Your task to perform on an android device: Open Reddit.com Image 0: 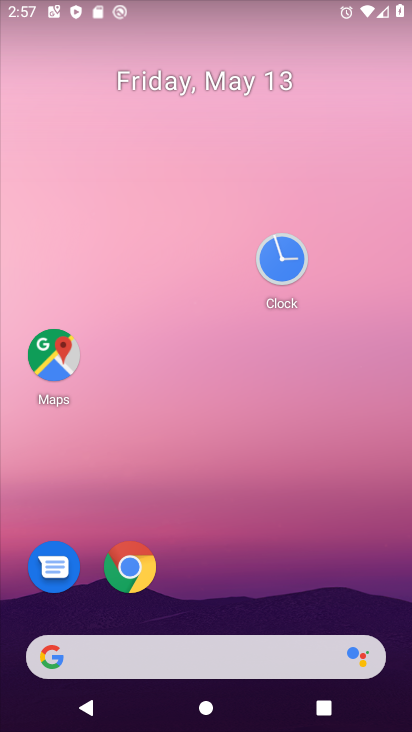
Step 0: click (157, 562)
Your task to perform on an android device: Open Reddit.com Image 1: 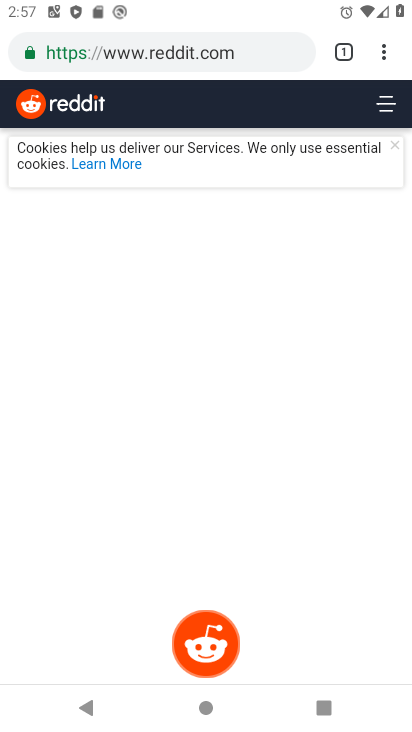
Step 1: click (248, 66)
Your task to perform on an android device: Open Reddit.com Image 2: 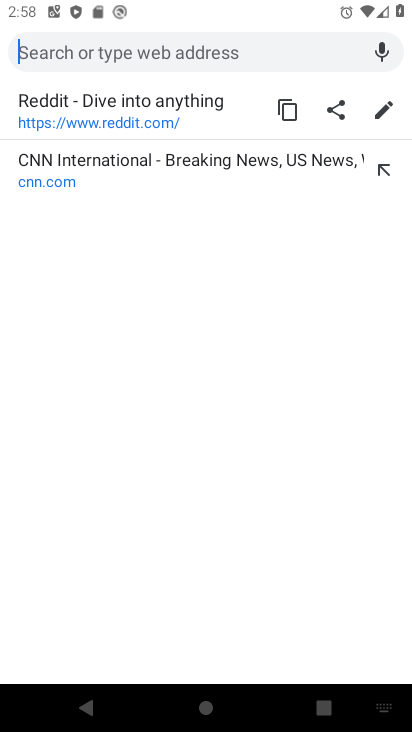
Step 2: click (135, 106)
Your task to perform on an android device: Open Reddit.com Image 3: 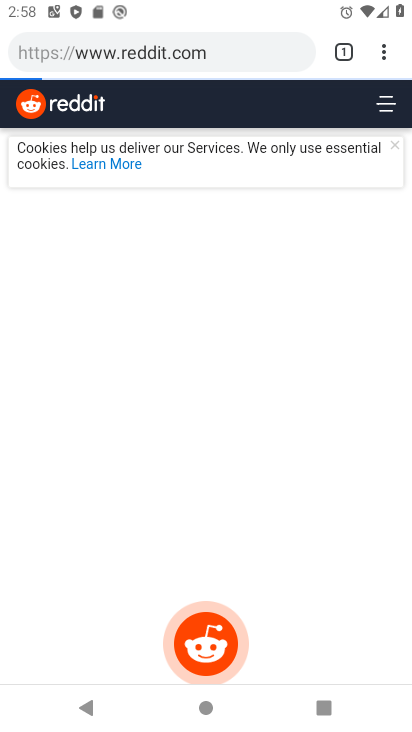
Step 3: task complete